Your task to perform on an android device: What's the weather today? Image 0: 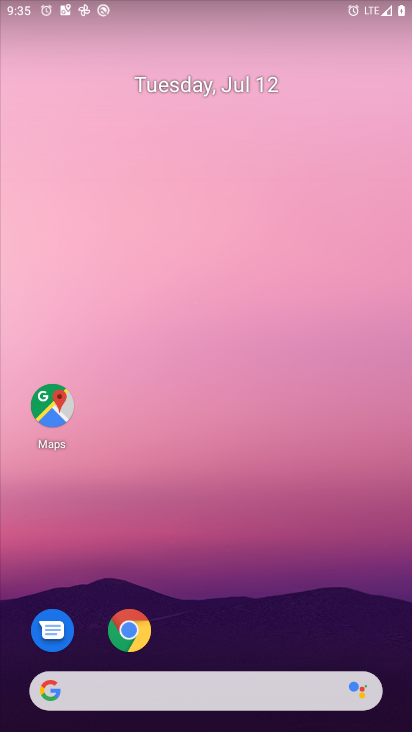
Step 0: press home button
Your task to perform on an android device: What's the weather today? Image 1: 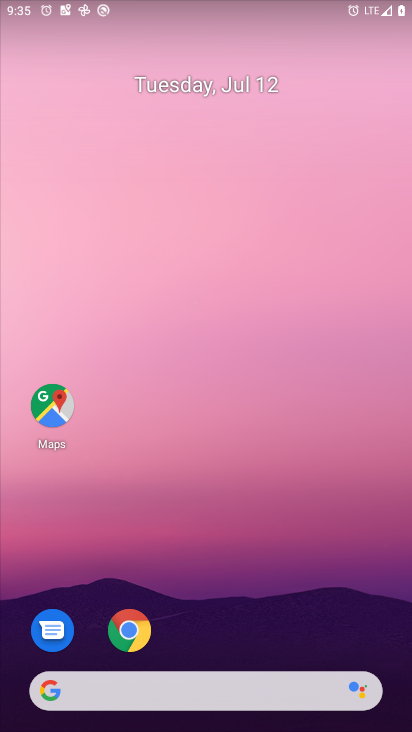
Step 1: click (207, 685)
Your task to perform on an android device: What's the weather today? Image 2: 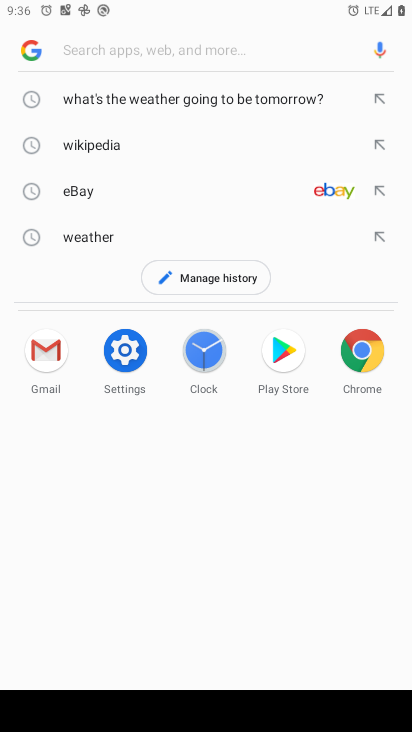
Step 2: type "What's the weather today?"
Your task to perform on an android device: What's the weather today? Image 3: 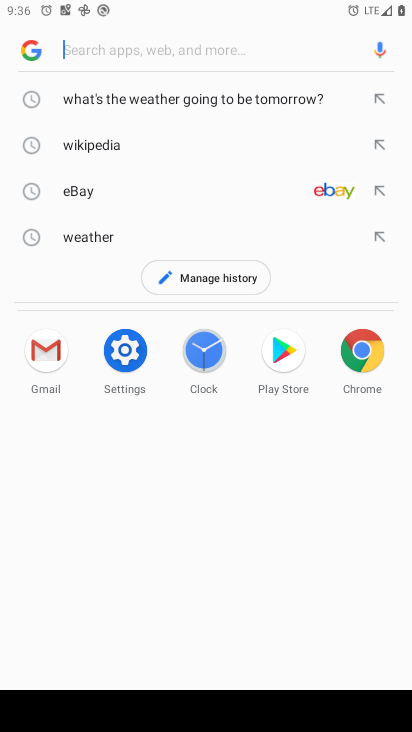
Step 3: click (92, 42)
Your task to perform on an android device: What's the weather today? Image 4: 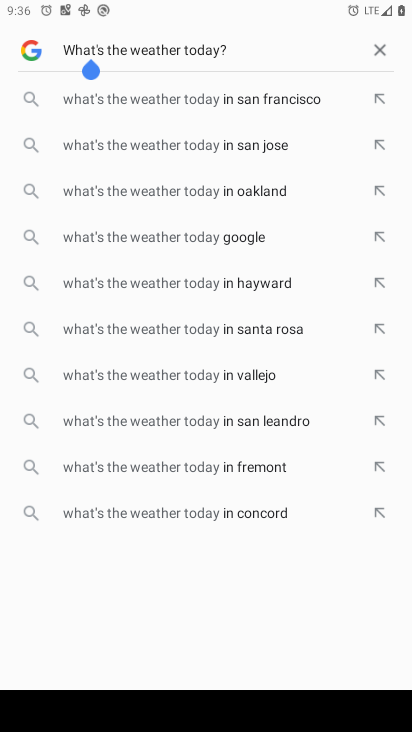
Step 4: press enter
Your task to perform on an android device: What's the weather today? Image 5: 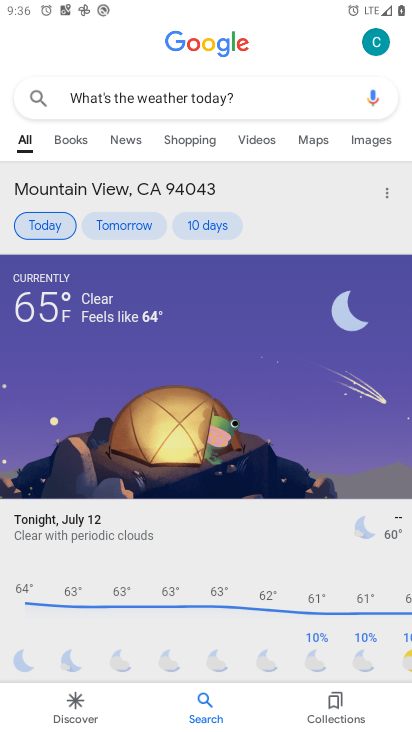
Step 5: task complete